Your task to perform on an android device: Open the calendar app, open the side menu, and click the "Day" option Image 0: 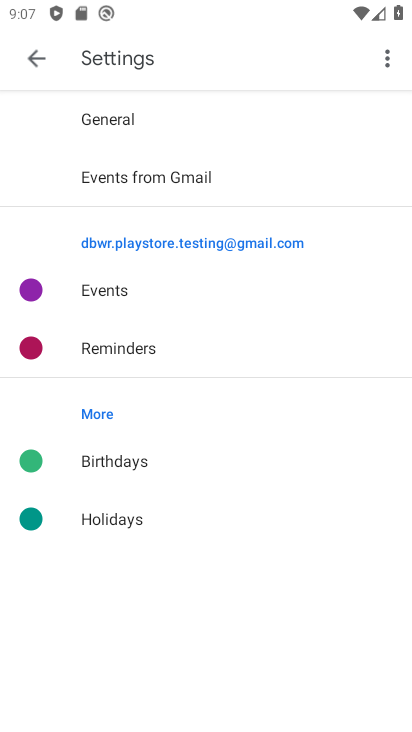
Step 0: press home button
Your task to perform on an android device: Open the calendar app, open the side menu, and click the "Day" option Image 1: 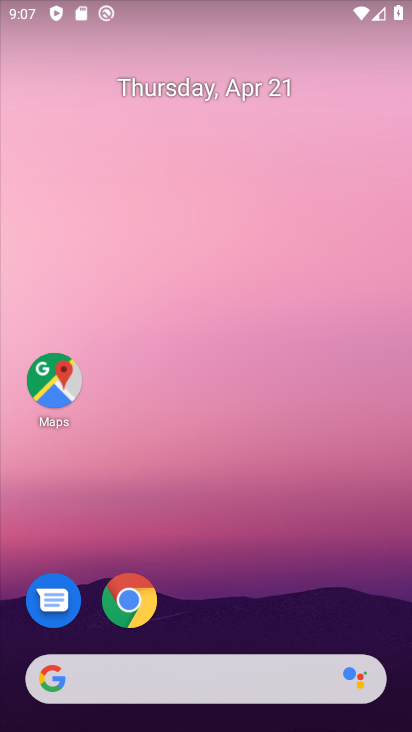
Step 1: drag from (224, 603) to (217, 112)
Your task to perform on an android device: Open the calendar app, open the side menu, and click the "Day" option Image 2: 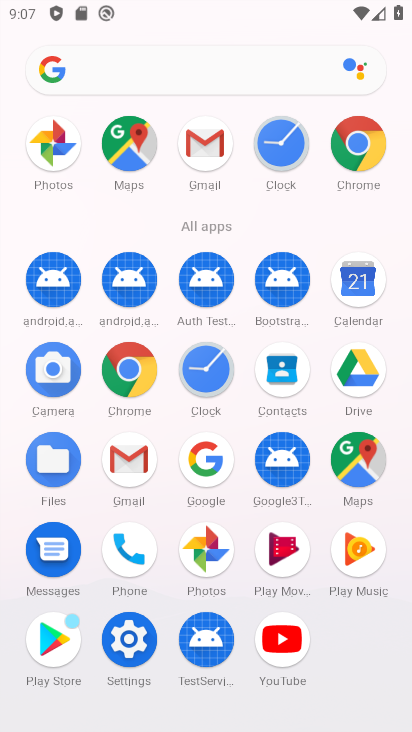
Step 2: click (355, 286)
Your task to perform on an android device: Open the calendar app, open the side menu, and click the "Day" option Image 3: 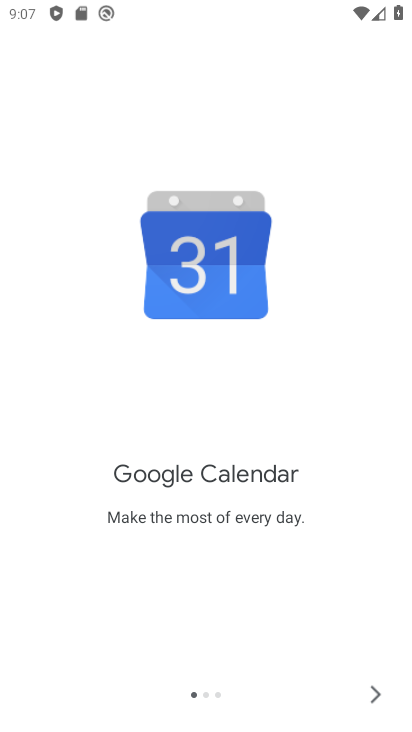
Step 3: click (372, 685)
Your task to perform on an android device: Open the calendar app, open the side menu, and click the "Day" option Image 4: 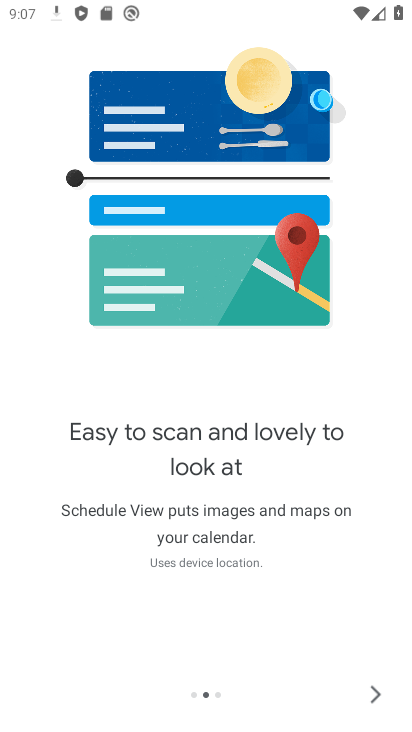
Step 4: click (372, 685)
Your task to perform on an android device: Open the calendar app, open the side menu, and click the "Day" option Image 5: 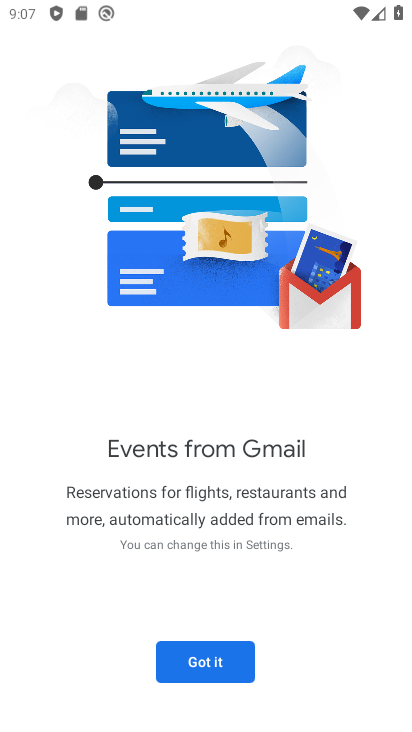
Step 5: click (372, 685)
Your task to perform on an android device: Open the calendar app, open the side menu, and click the "Day" option Image 6: 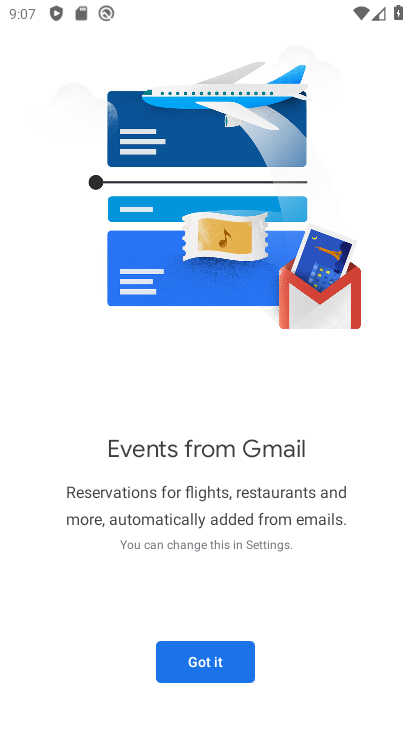
Step 6: click (232, 664)
Your task to perform on an android device: Open the calendar app, open the side menu, and click the "Day" option Image 7: 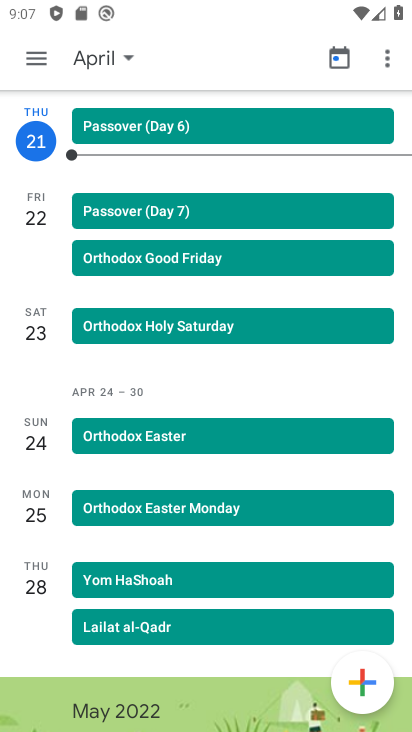
Step 7: click (40, 62)
Your task to perform on an android device: Open the calendar app, open the side menu, and click the "Day" option Image 8: 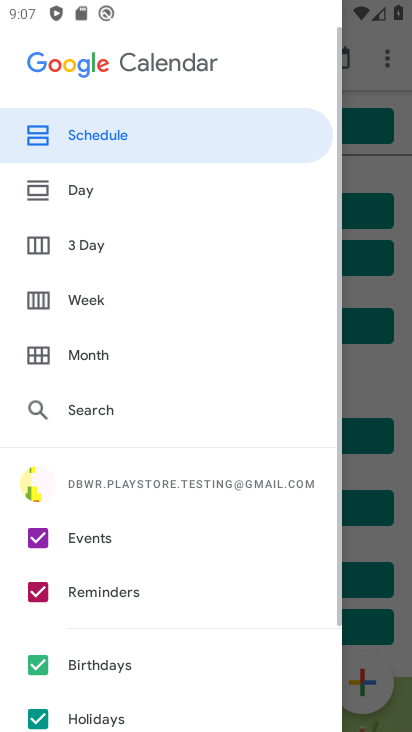
Step 8: click (108, 202)
Your task to perform on an android device: Open the calendar app, open the side menu, and click the "Day" option Image 9: 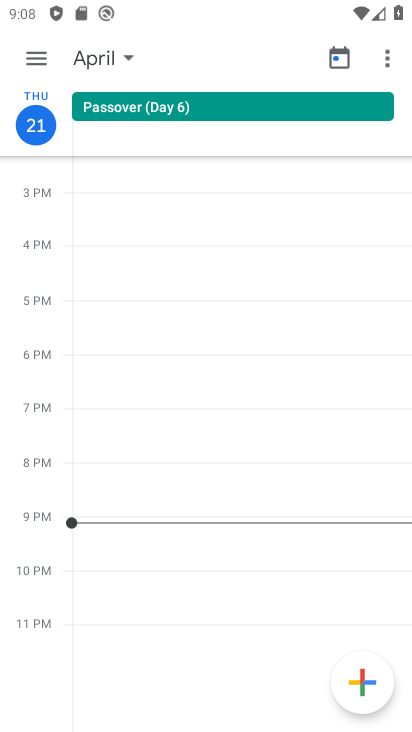
Step 9: task complete